Your task to perform on an android device: empty trash in the gmail app Image 0: 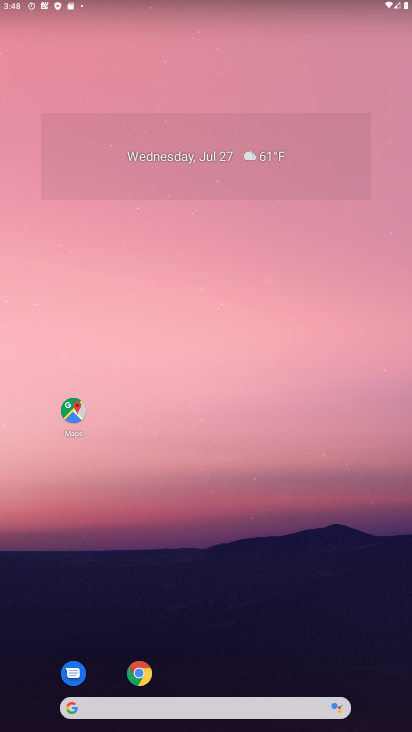
Step 0: drag from (170, 331) to (204, 136)
Your task to perform on an android device: empty trash in the gmail app Image 1: 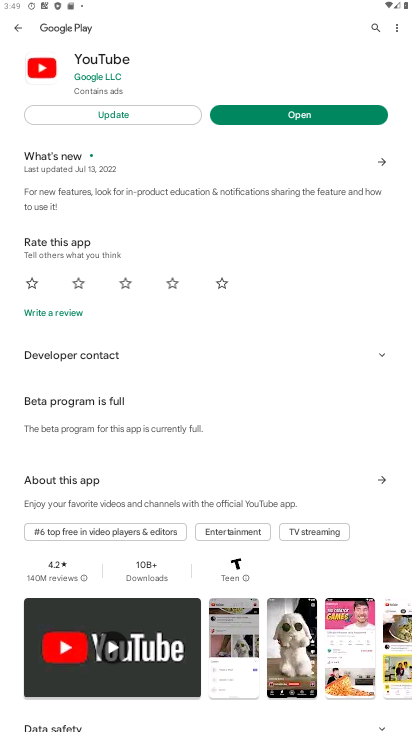
Step 1: press home button
Your task to perform on an android device: empty trash in the gmail app Image 2: 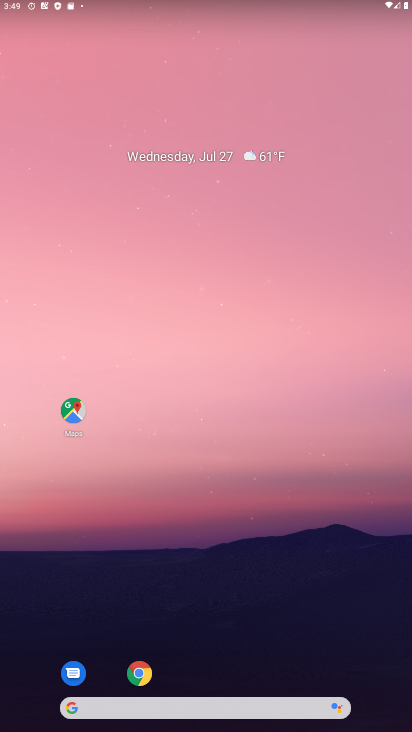
Step 2: drag from (117, 513) to (246, 64)
Your task to perform on an android device: empty trash in the gmail app Image 3: 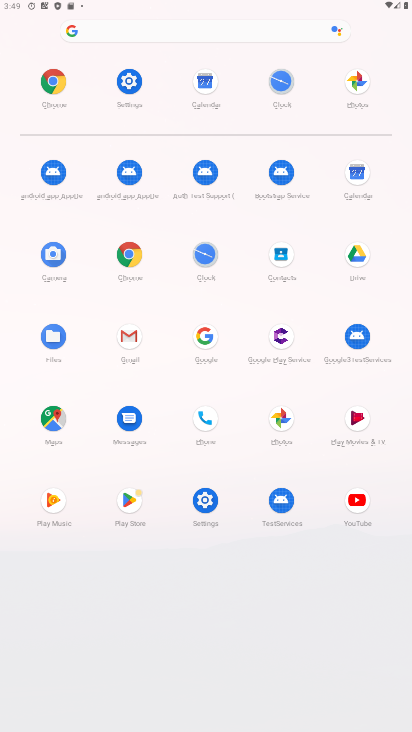
Step 3: click (137, 334)
Your task to perform on an android device: empty trash in the gmail app Image 4: 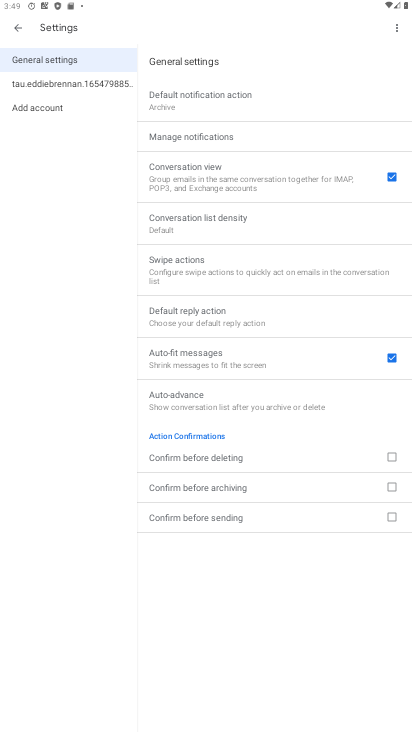
Step 4: click (19, 24)
Your task to perform on an android device: empty trash in the gmail app Image 5: 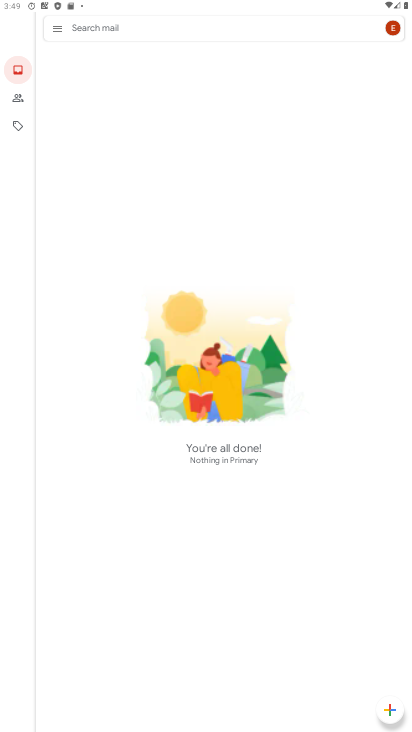
Step 5: task complete